Your task to perform on an android device: toggle translation in the chrome app Image 0: 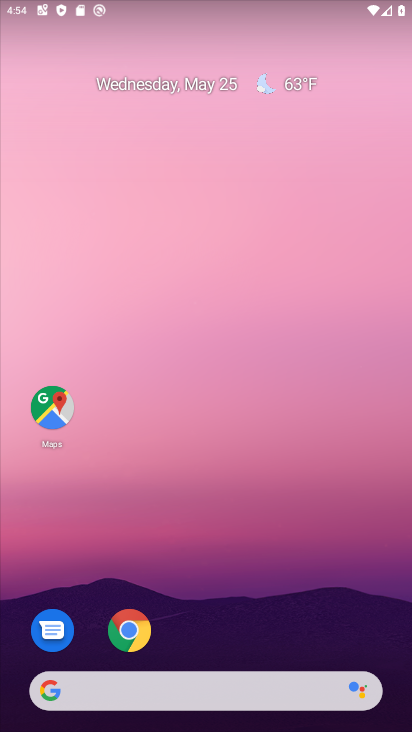
Step 0: click (139, 625)
Your task to perform on an android device: toggle translation in the chrome app Image 1: 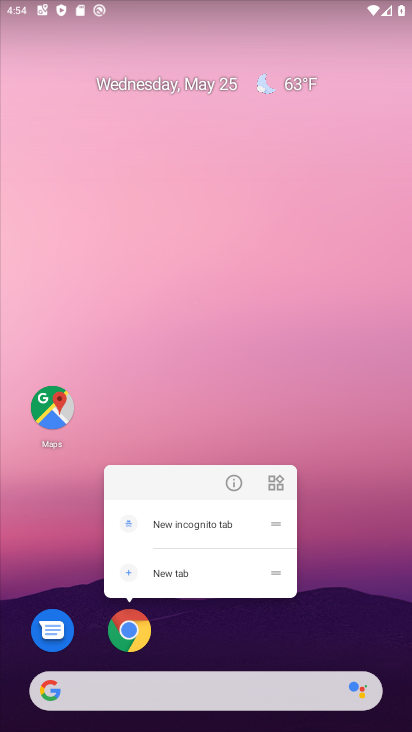
Step 1: click (135, 624)
Your task to perform on an android device: toggle translation in the chrome app Image 2: 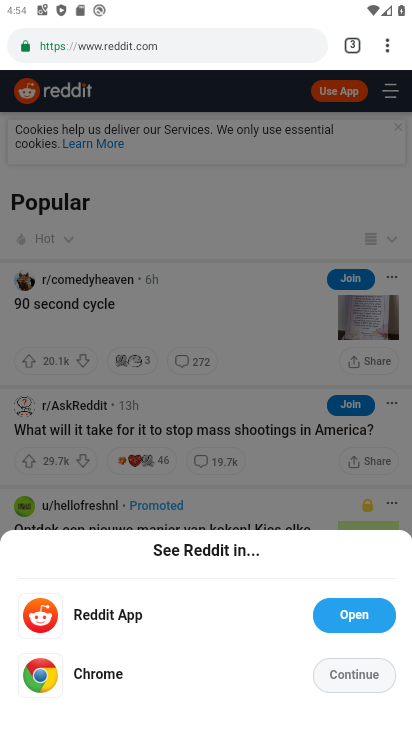
Step 2: drag from (384, 43) to (219, 512)
Your task to perform on an android device: toggle translation in the chrome app Image 3: 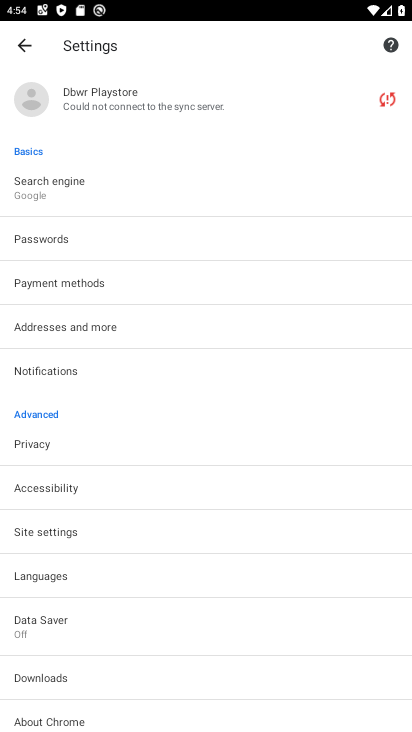
Step 3: click (64, 528)
Your task to perform on an android device: toggle translation in the chrome app Image 4: 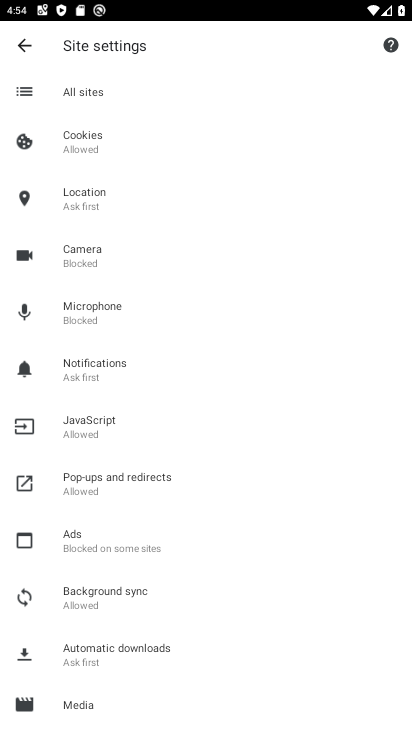
Step 4: click (35, 45)
Your task to perform on an android device: toggle translation in the chrome app Image 5: 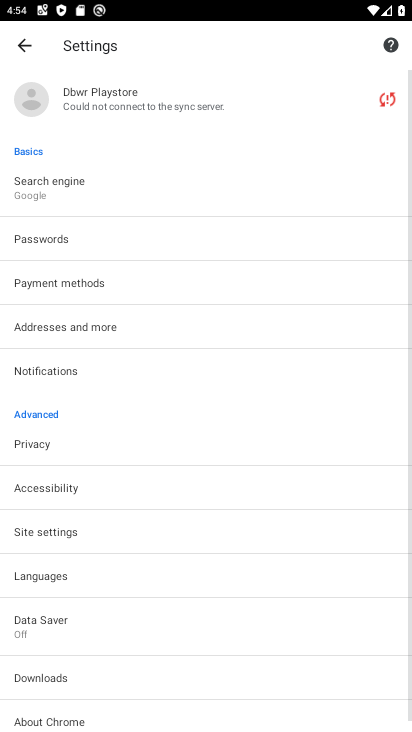
Step 5: click (52, 573)
Your task to perform on an android device: toggle translation in the chrome app Image 6: 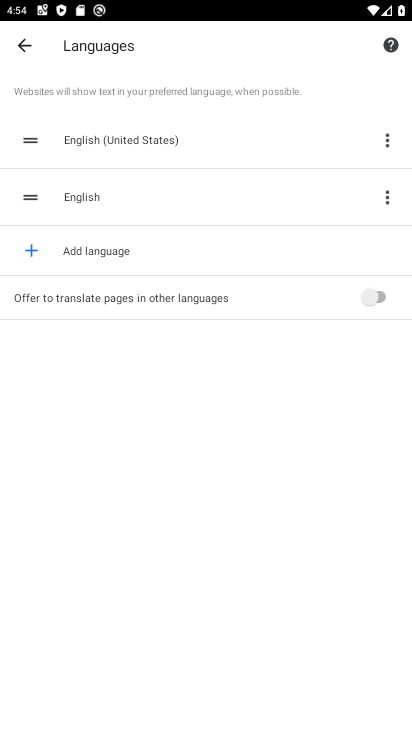
Step 6: click (376, 295)
Your task to perform on an android device: toggle translation in the chrome app Image 7: 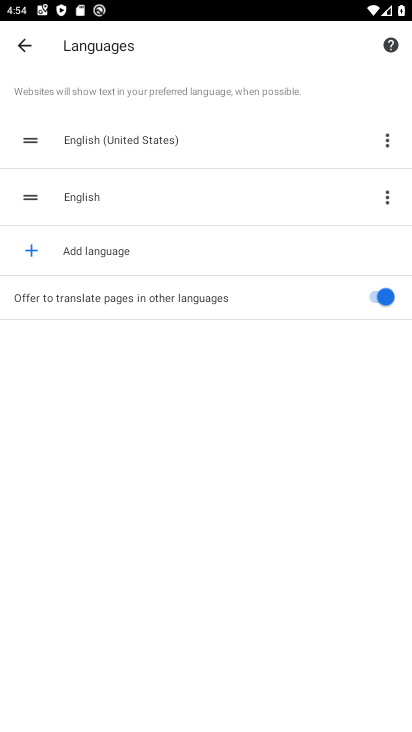
Step 7: task complete